Your task to perform on an android device: Go to sound settings Image 0: 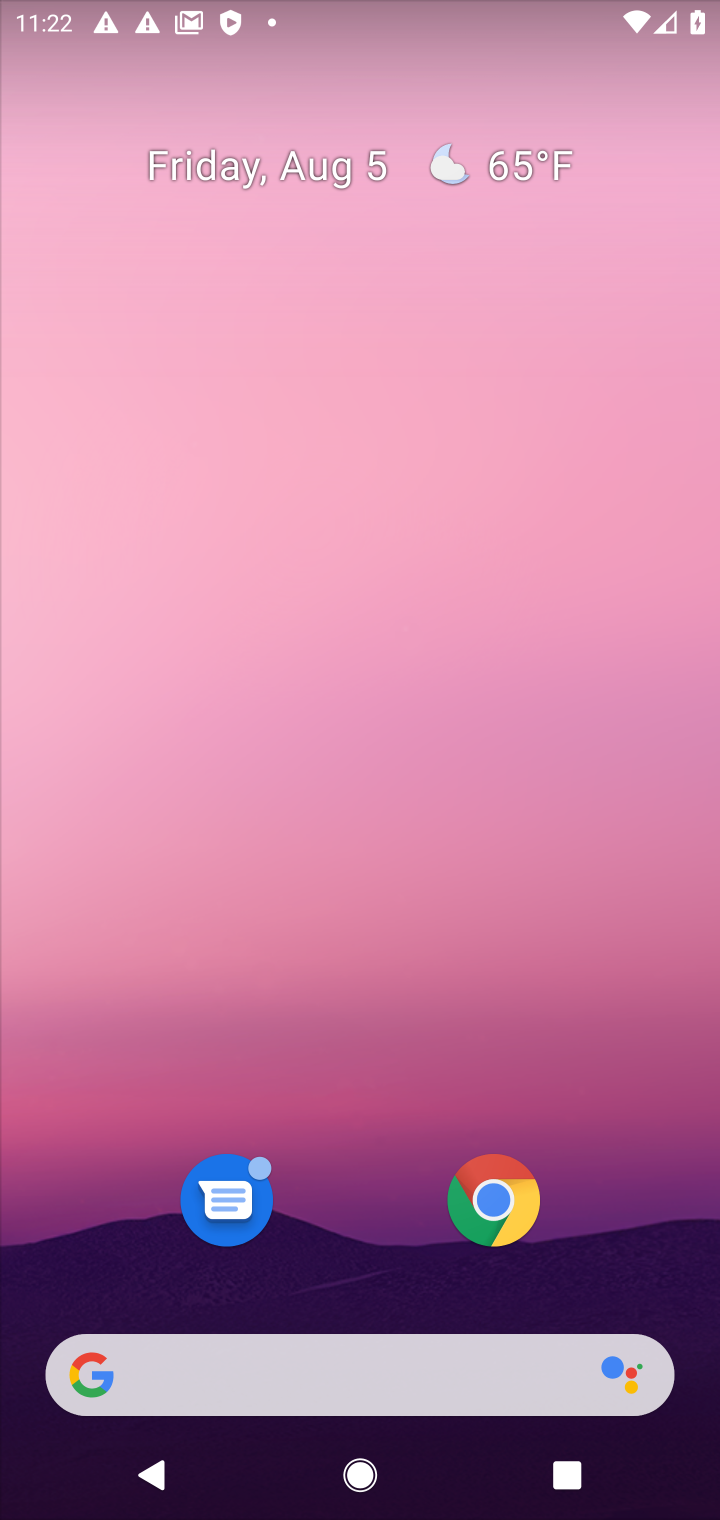
Step 0: drag from (663, 1273) to (594, 185)
Your task to perform on an android device: Go to sound settings Image 1: 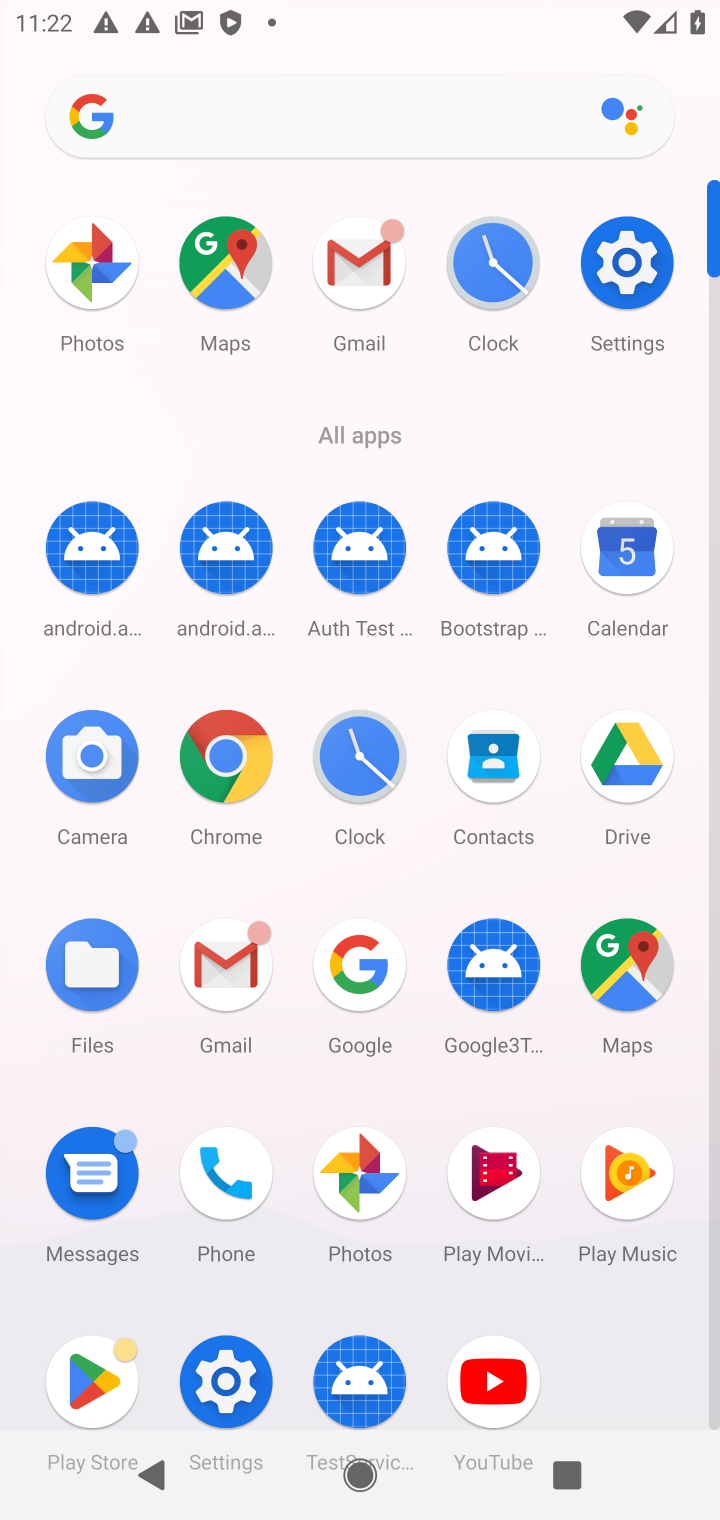
Step 1: click (230, 1385)
Your task to perform on an android device: Go to sound settings Image 2: 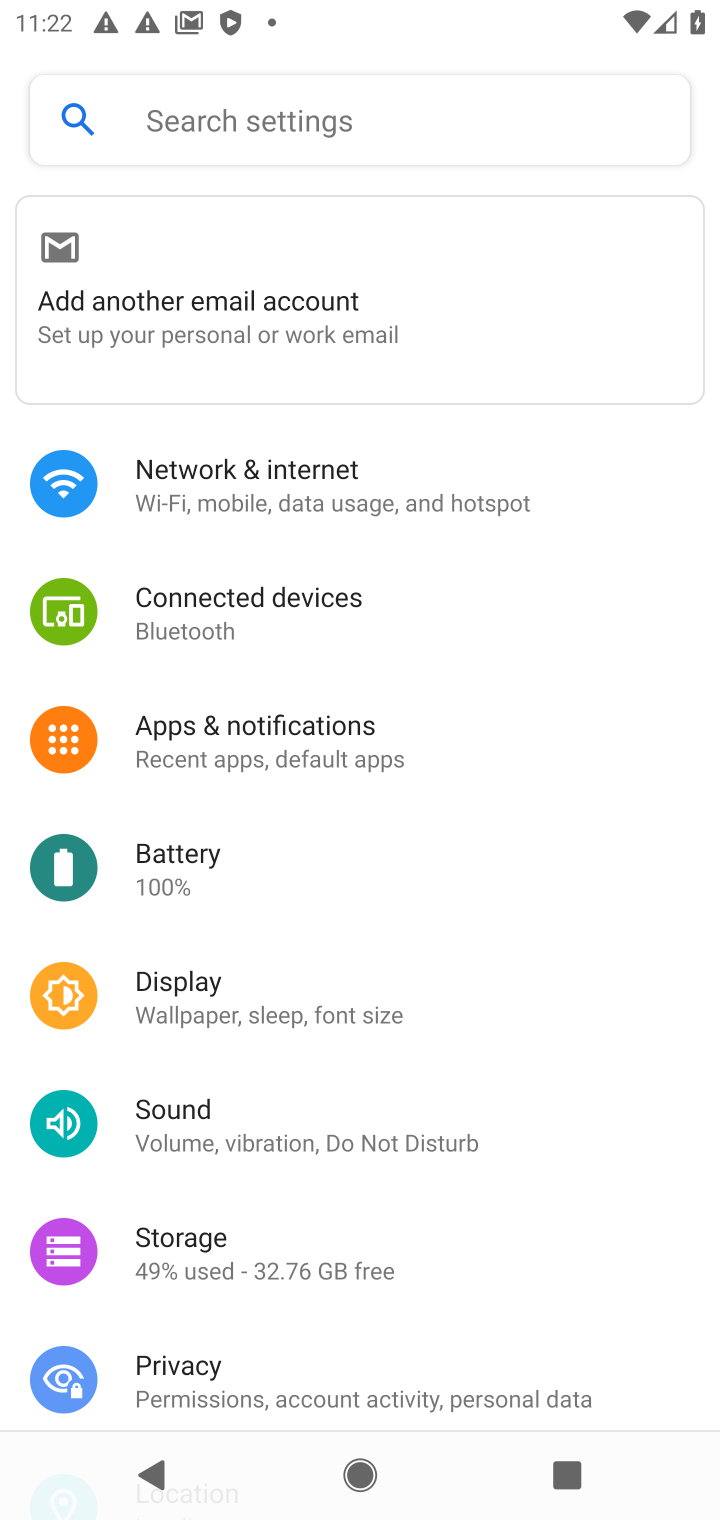
Step 2: click (180, 1130)
Your task to perform on an android device: Go to sound settings Image 3: 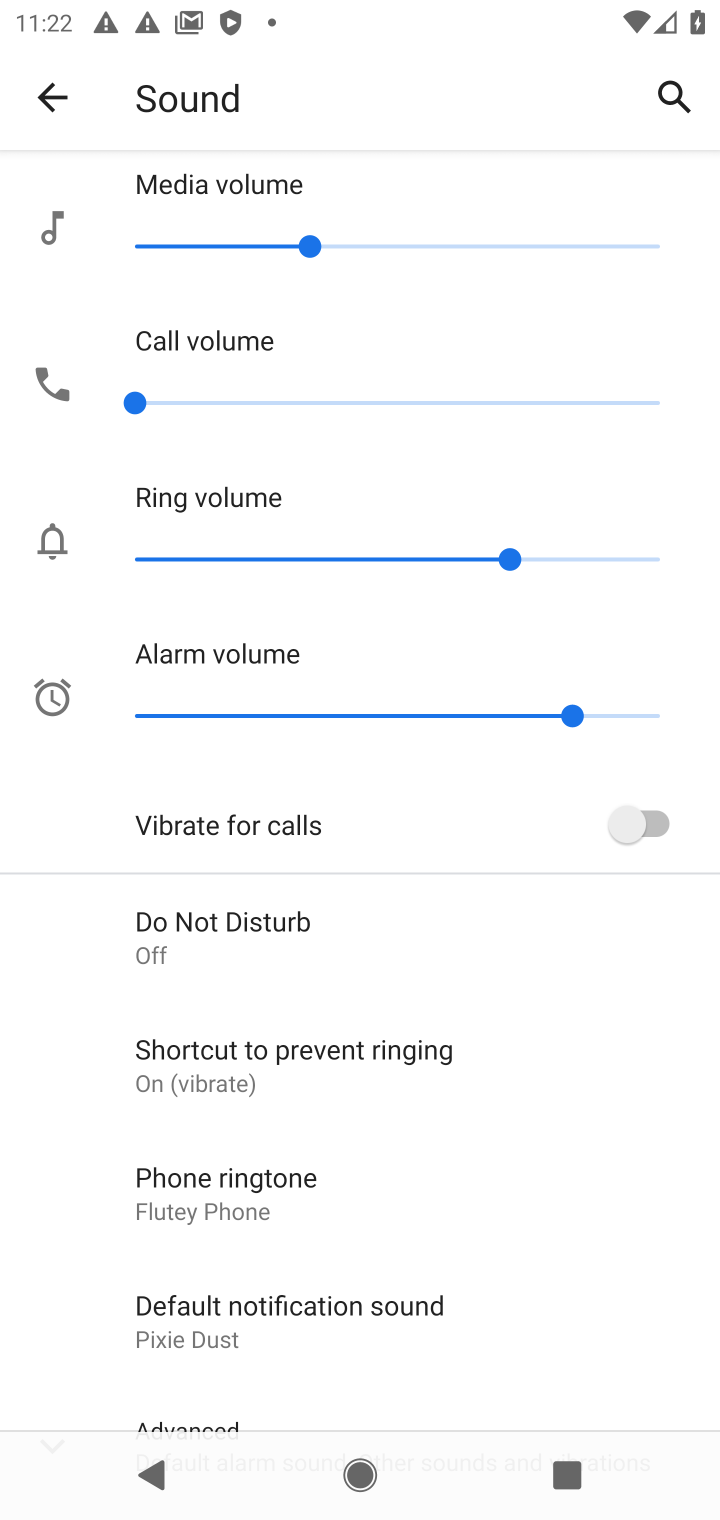
Step 3: drag from (497, 1302) to (465, 766)
Your task to perform on an android device: Go to sound settings Image 4: 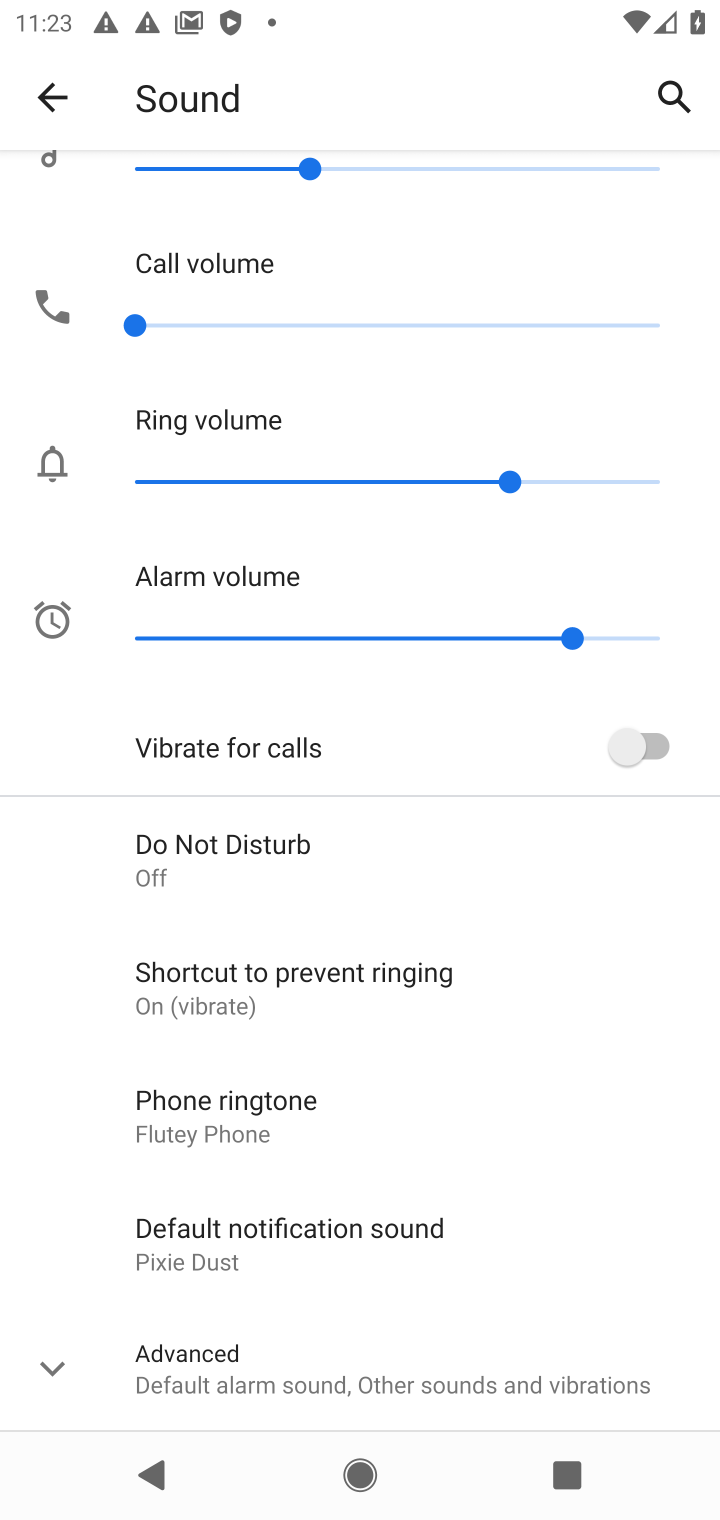
Step 4: click (44, 1368)
Your task to perform on an android device: Go to sound settings Image 5: 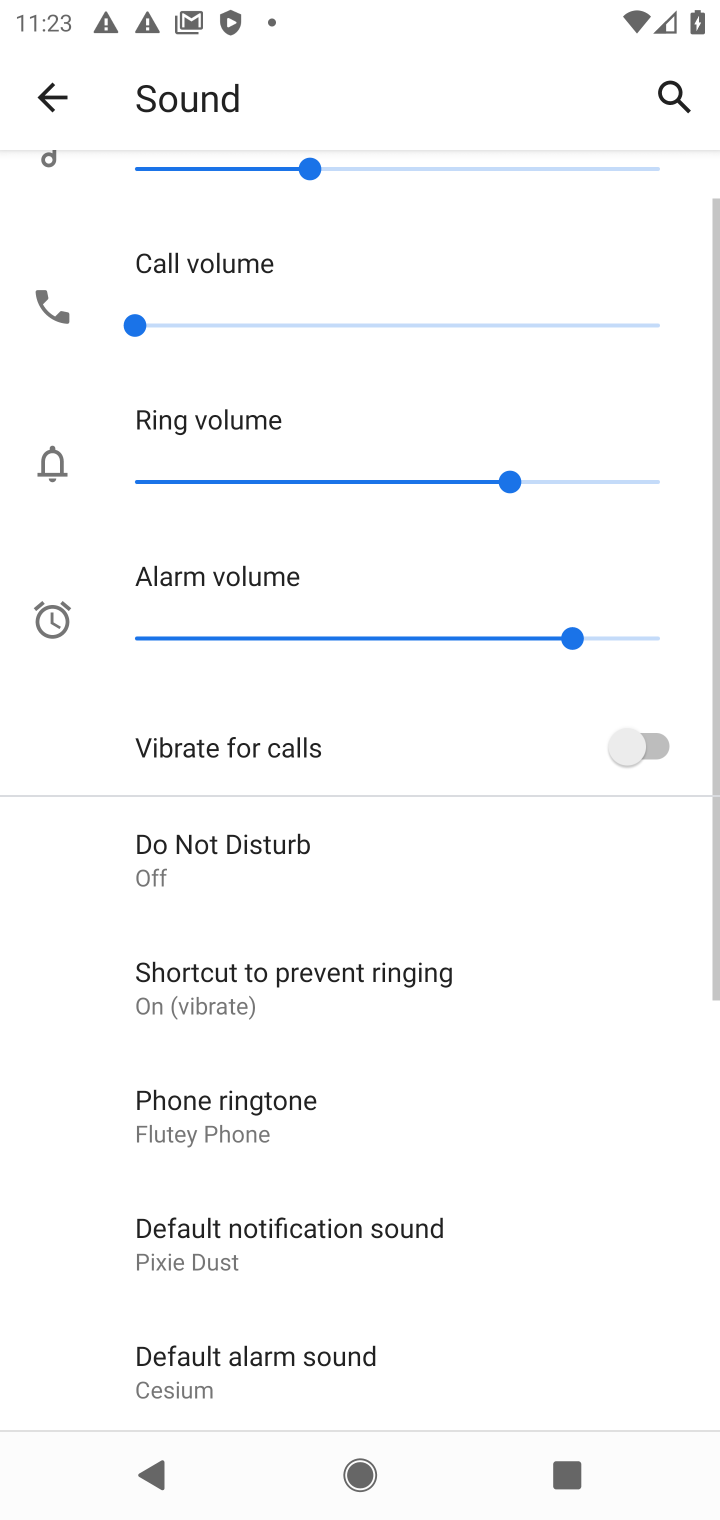
Step 5: task complete